Your task to perform on an android device: Open Yahoo.com Image 0: 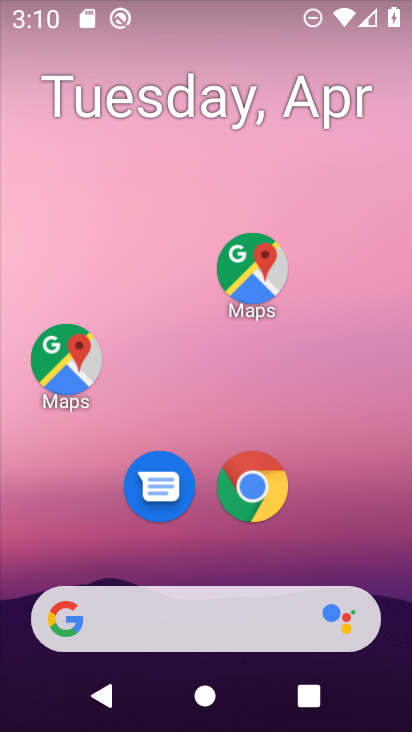
Step 0: click (259, 510)
Your task to perform on an android device: Open Yahoo.com Image 1: 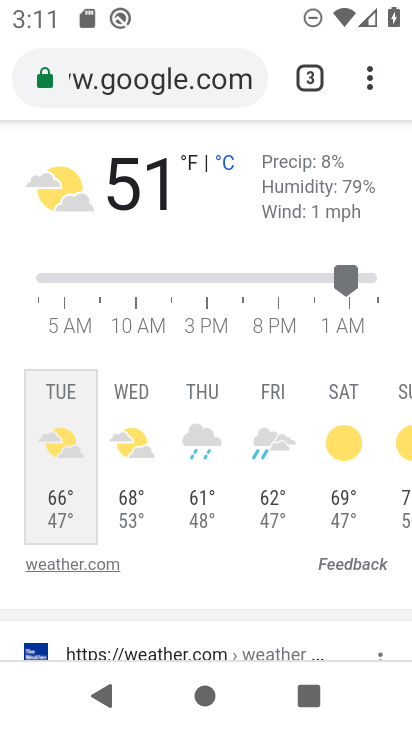
Step 1: click (308, 84)
Your task to perform on an android device: Open Yahoo.com Image 2: 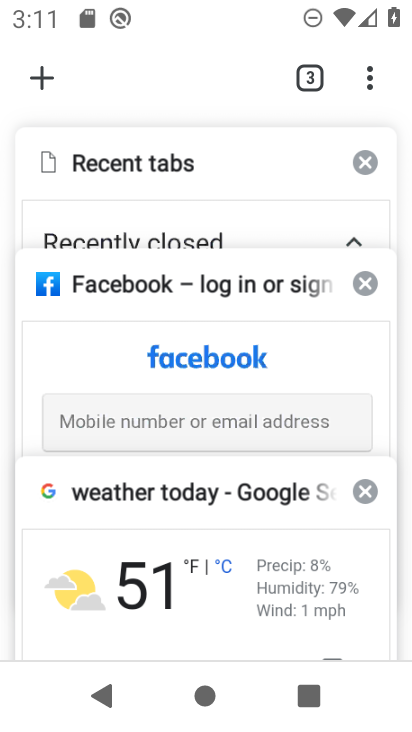
Step 2: click (53, 85)
Your task to perform on an android device: Open Yahoo.com Image 3: 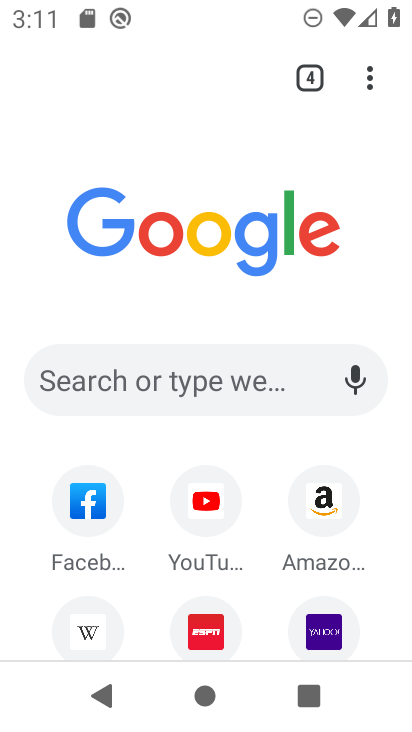
Step 3: click (201, 377)
Your task to perform on an android device: Open Yahoo.com Image 4: 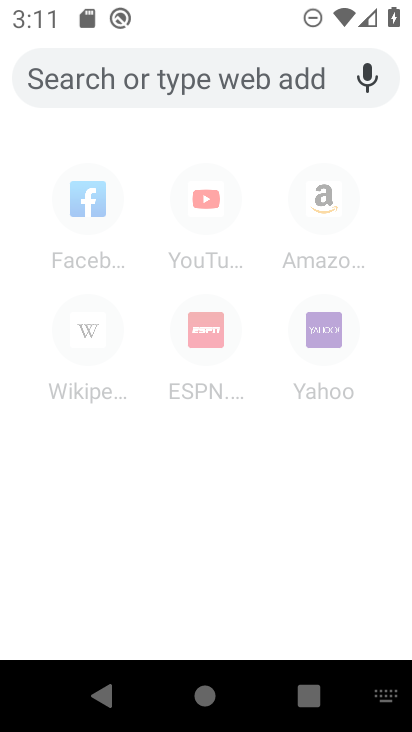
Step 4: type "Yahoo.com"
Your task to perform on an android device: Open Yahoo.com Image 5: 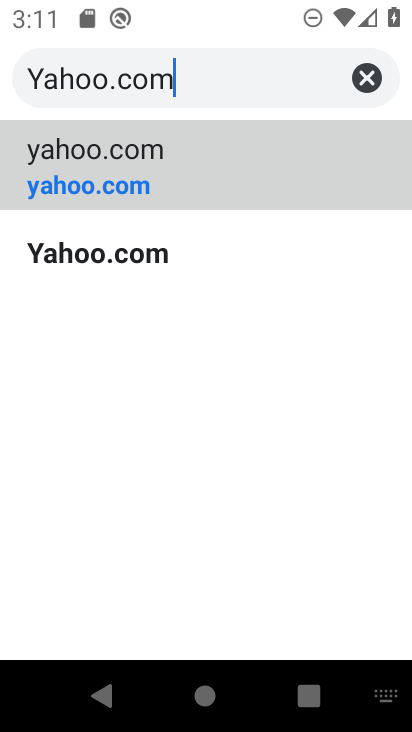
Step 5: type ""
Your task to perform on an android device: Open Yahoo.com Image 6: 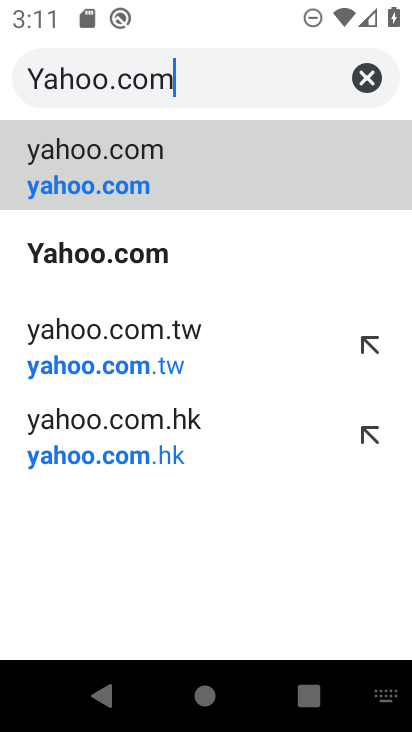
Step 6: click (177, 174)
Your task to perform on an android device: Open Yahoo.com Image 7: 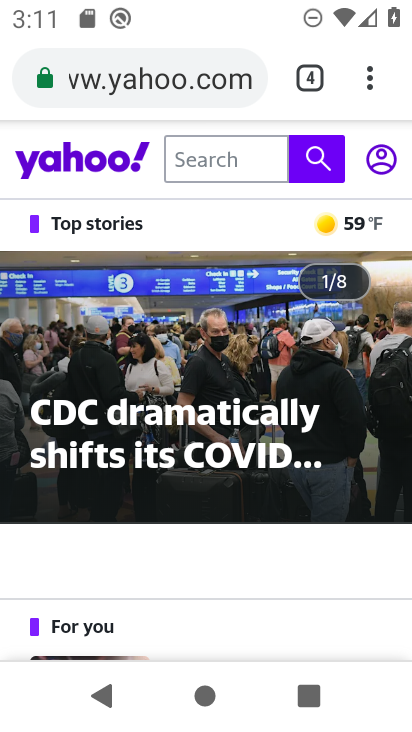
Step 7: task complete